Your task to perform on an android device: Open Google Chrome Image 0: 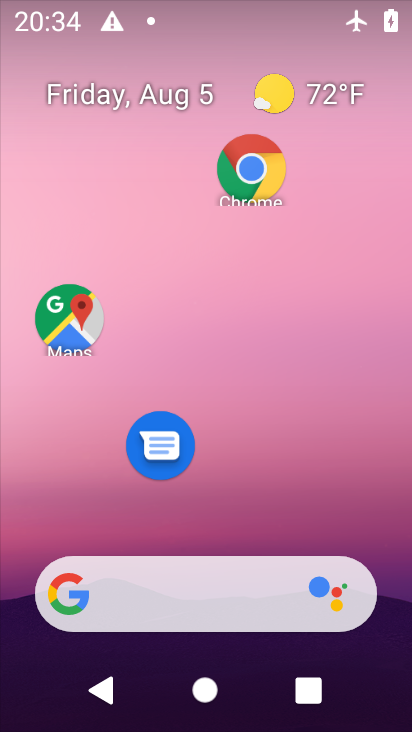
Step 0: click (251, 173)
Your task to perform on an android device: Open Google Chrome Image 1: 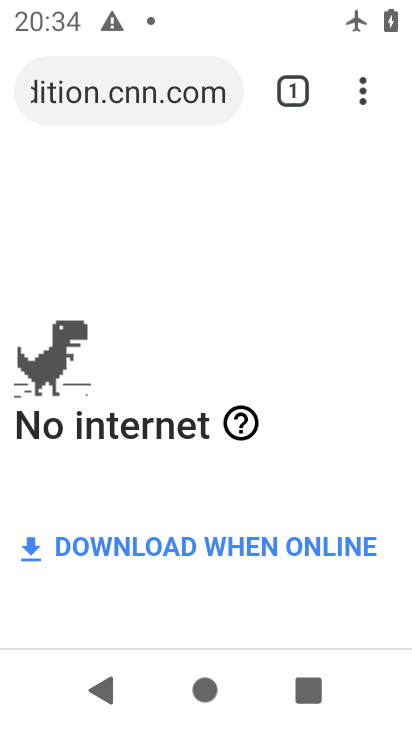
Step 1: task complete